Your task to perform on an android device: toggle priority inbox in the gmail app Image 0: 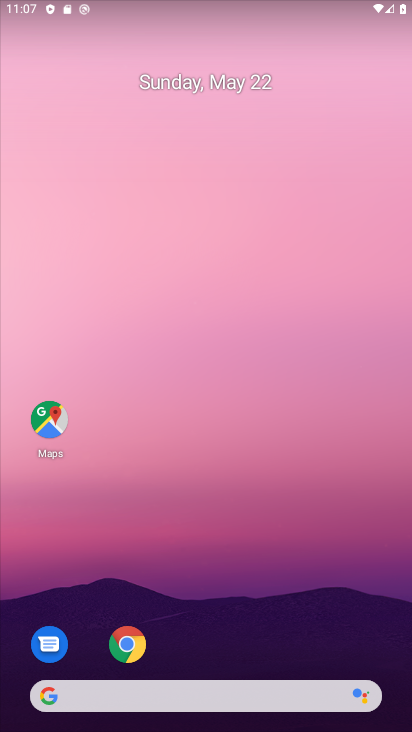
Step 0: drag from (338, 626) to (202, 54)
Your task to perform on an android device: toggle priority inbox in the gmail app Image 1: 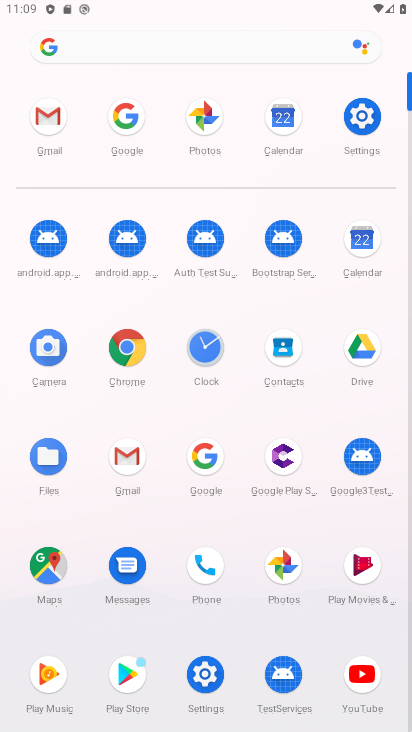
Step 1: click (33, 115)
Your task to perform on an android device: toggle priority inbox in the gmail app Image 2: 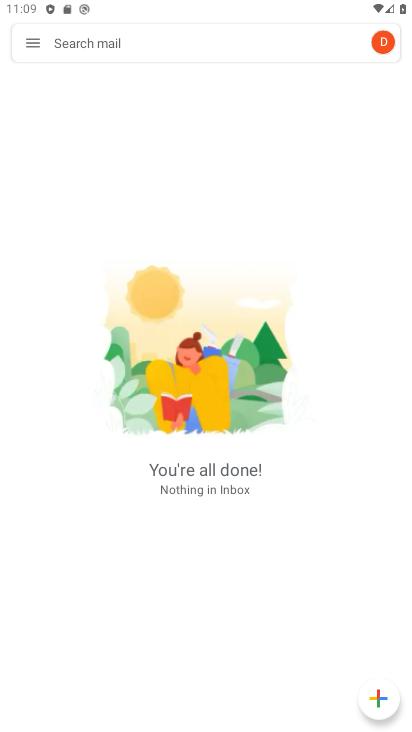
Step 2: click (32, 44)
Your task to perform on an android device: toggle priority inbox in the gmail app Image 3: 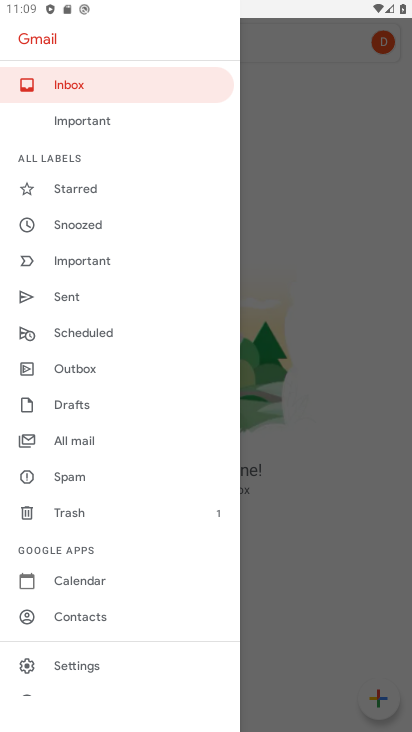
Step 3: click (94, 674)
Your task to perform on an android device: toggle priority inbox in the gmail app Image 4: 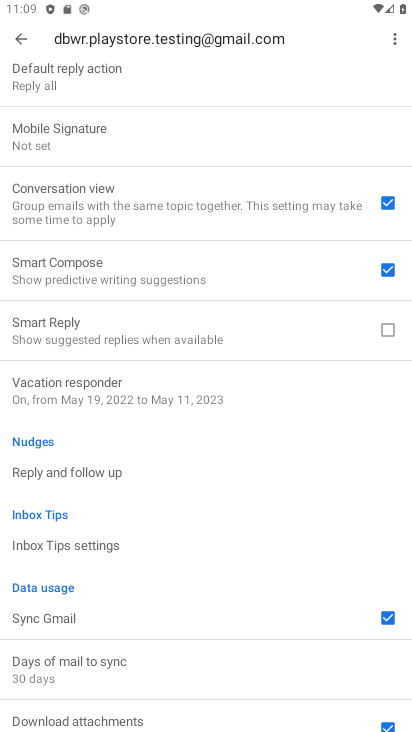
Step 4: drag from (190, 106) to (244, 593)
Your task to perform on an android device: toggle priority inbox in the gmail app Image 5: 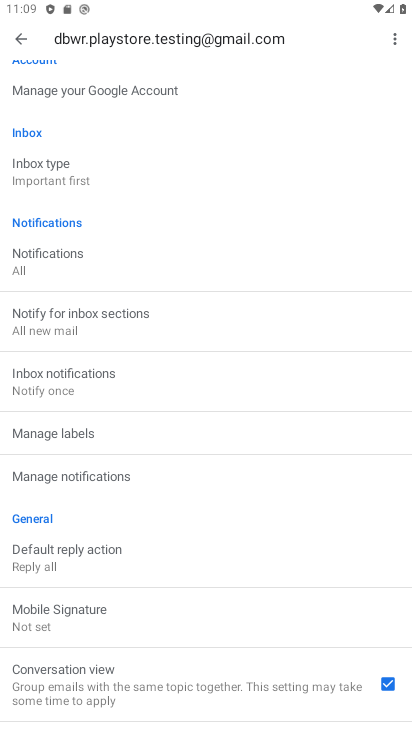
Step 5: drag from (108, 170) to (159, 565)
Your task to perform on an android device: toggle priority inbox in the gmail app Image 6: 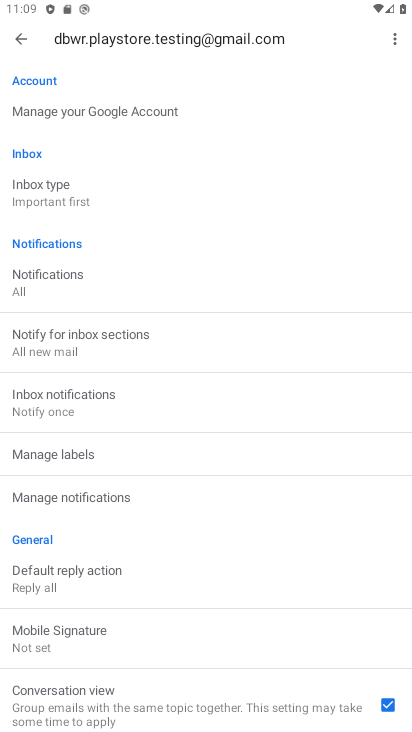
Step 6: click (100, 212)
Your task to perform on an android device: toggle priority inbox in the gmail app Image 7: 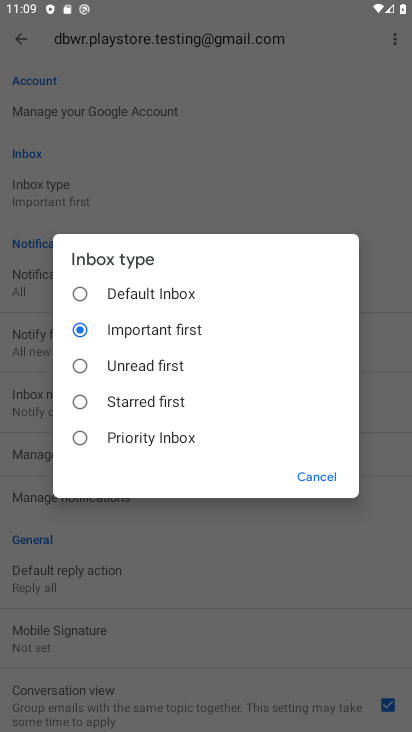
Step 7: click (150, 302)
Your task to perform on an android device: toggle priority inbox in the gmail app Image 8: 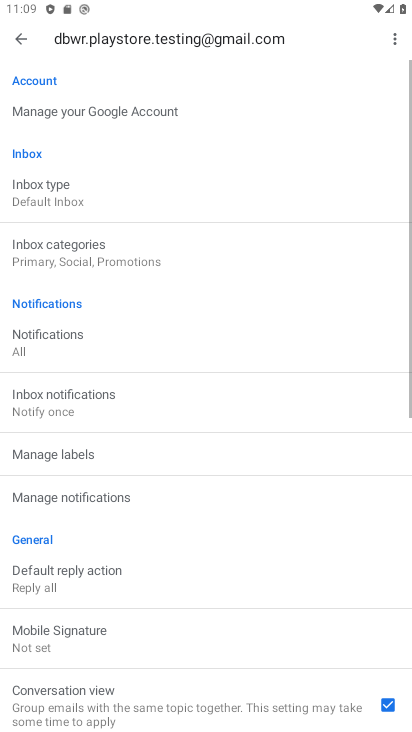
Step 8: task complete